Your task to perform on an android device: delete location history Image 0: 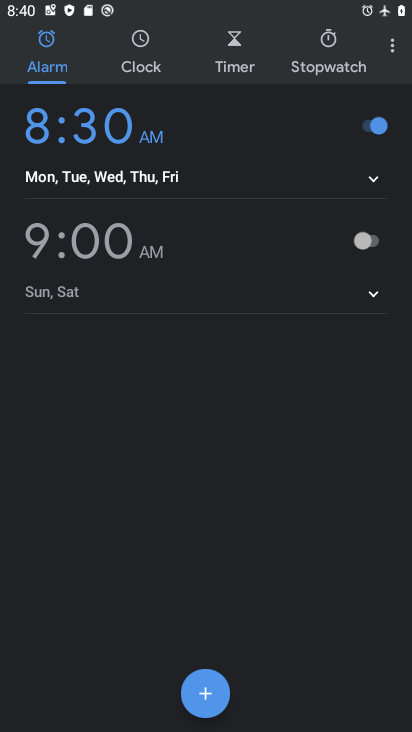
Step 0: press home button
Your task to perform on an android device: delete location history Image 1: 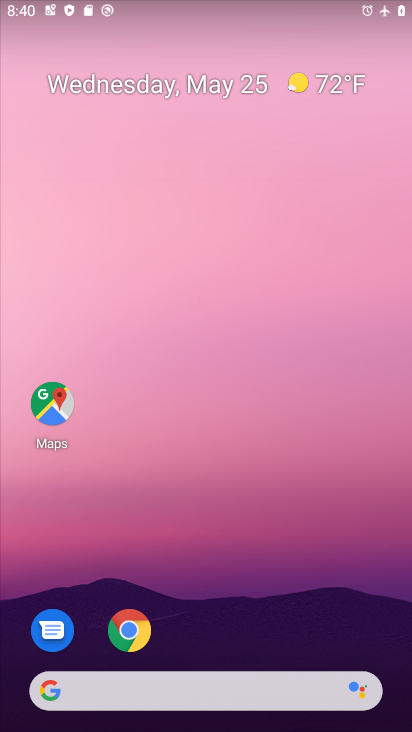
Step 1: click (38, 422)
Your task to perform on an android device: delete location history Image 2: 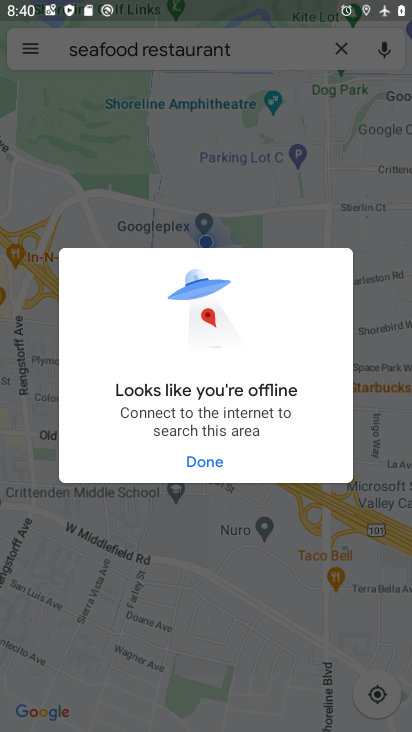
Step 2: click (210, 455)
Your task to perform on an android device: delete location history Image 3: 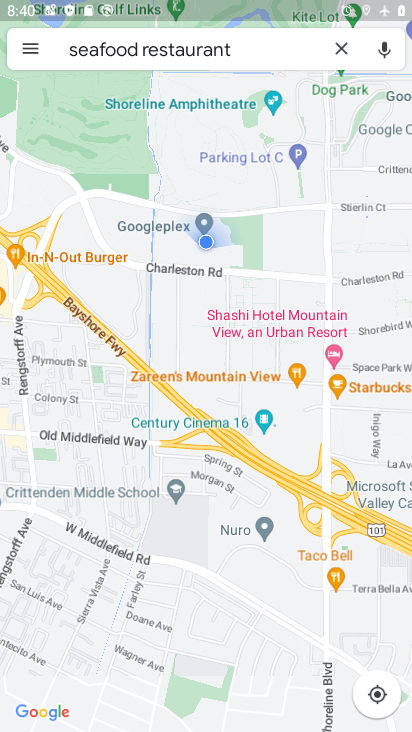
Step 3: click (31, 50)
Your task to perform on an android device: delete location history Image 4: 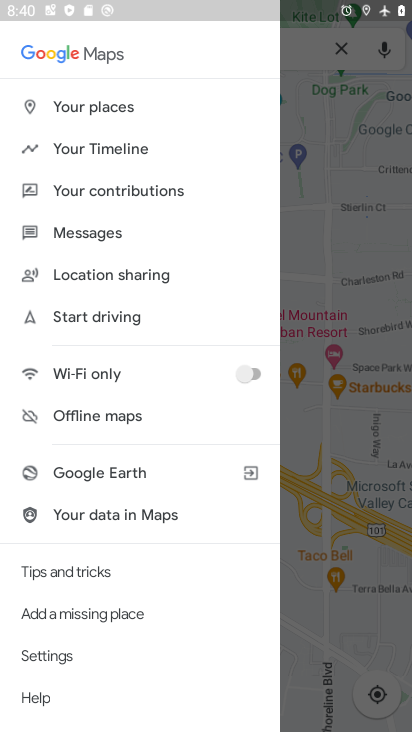
Step 4: click (128, 145)
Your task to perform on an android device: delete location history Image 5: 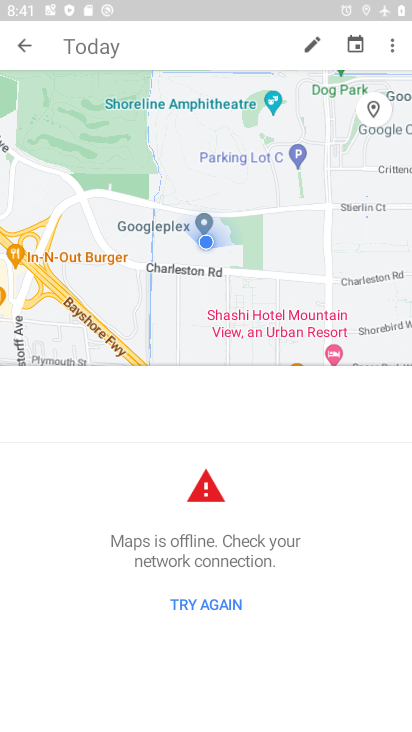
Step 5: click (392, 44)
Your task to perform on an android device: delete location history Image 6: 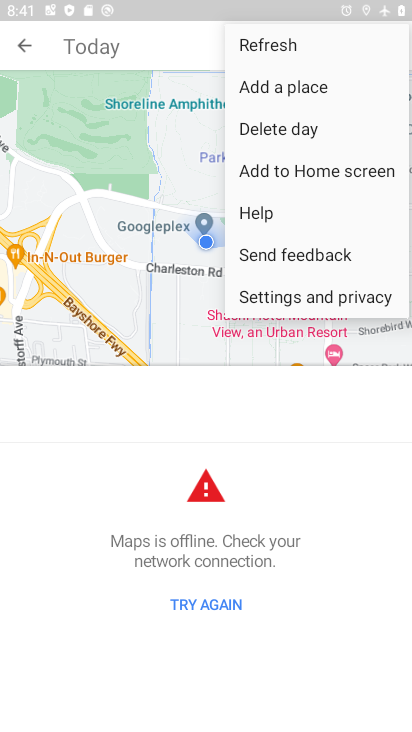
Step 6: click (293, 290)
Your task to perform on an android device: delete location history Image 7: 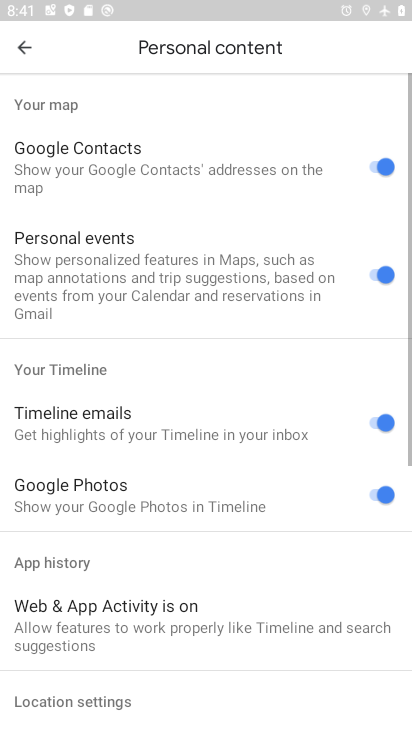
Step 7: drag from (239, 604) to (293, 194)
Your task to perform on an android device: delete location history Image 8: 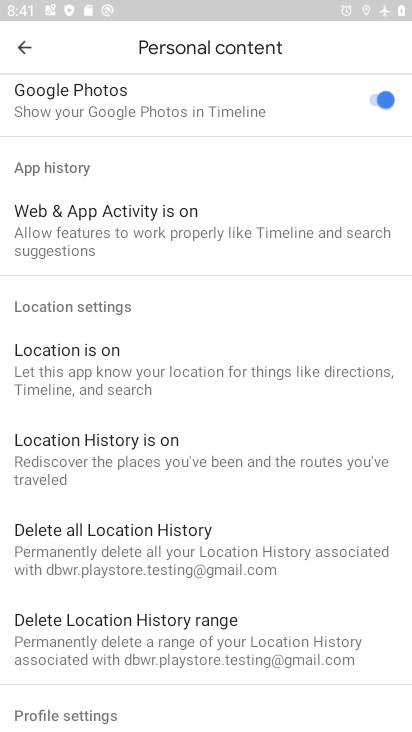
Step 8: click (229, 542)
Your task to perform on an android device: delete location history Image 9: 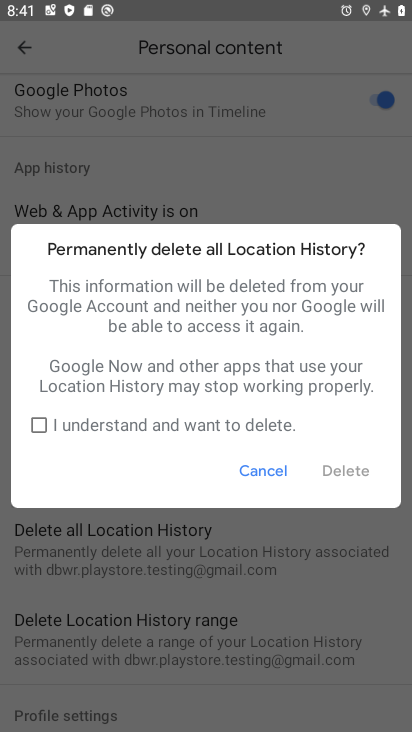
Step 9: click (55, 424)
Your task to perform on an android device: delete location history Image 10: 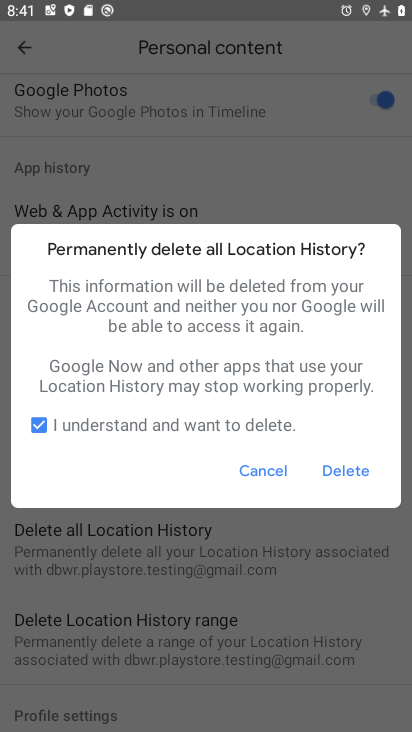
Step 10: click (329, 459)
Your task to perform on an android device: delete location history Image 11: 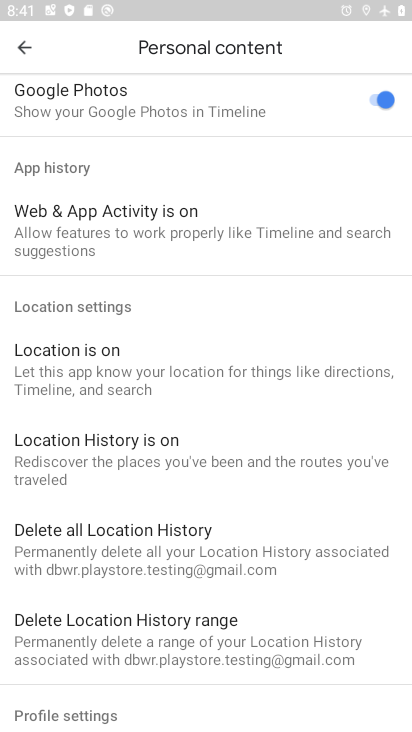
Step 11: click (338, 466)
Your task to perform on an android device: delete location history Image 12: 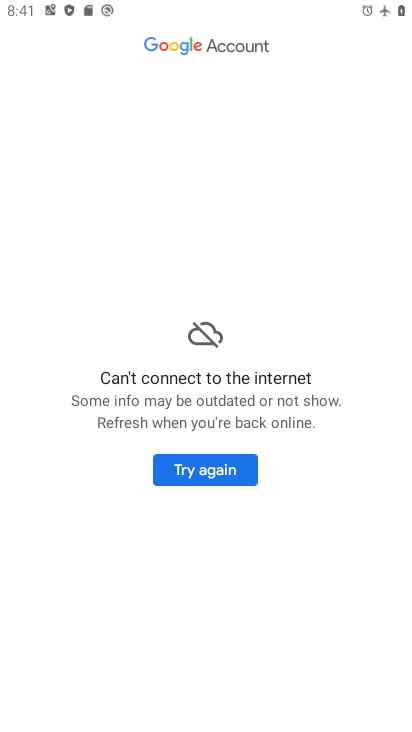
Step 12: task complete